Your task to perform on an android device: choose inbox layout in the gmail app Image 0: 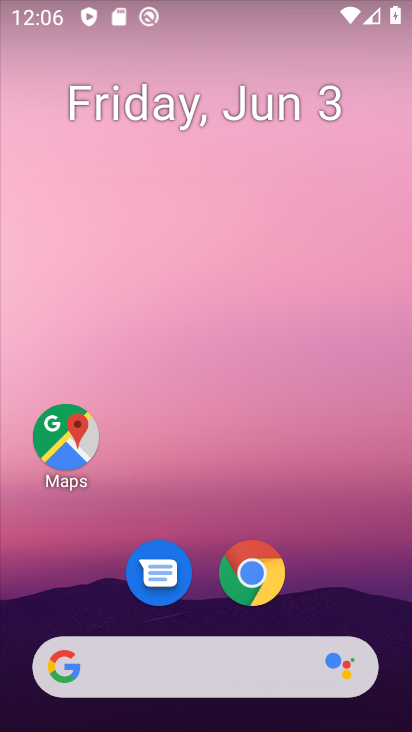
Step 0: task complete